Your task to perform on an android device: open a bookmark in the chrome app Image 0: 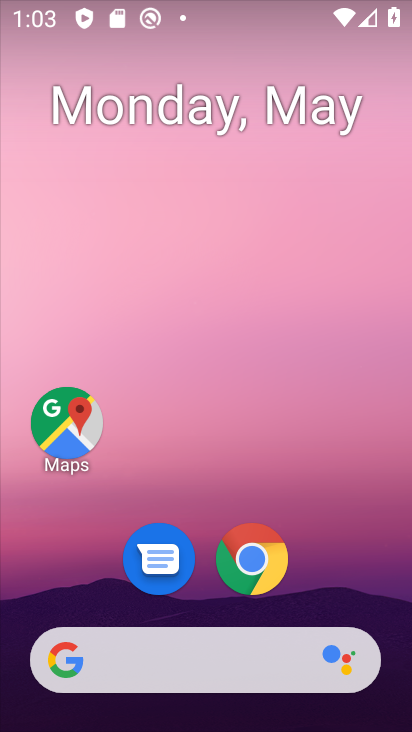
Step 0: click (255, 567)
Your task to perform on an android device: open a bookmark in the chrome app Image 1: 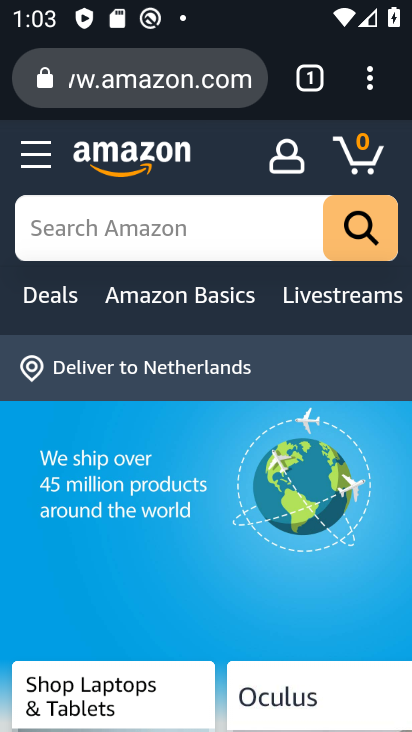
Step 1: click (372, 76)
Your task to perform on an android device: open a bookmark in the chrome app Image 2: 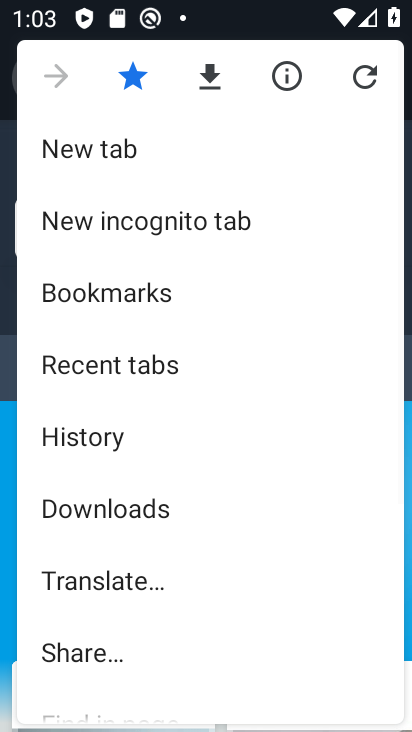
Step 2: click (157, 315)
Your task to perform on an android device: open a bookmark in the chrome app Image 3: 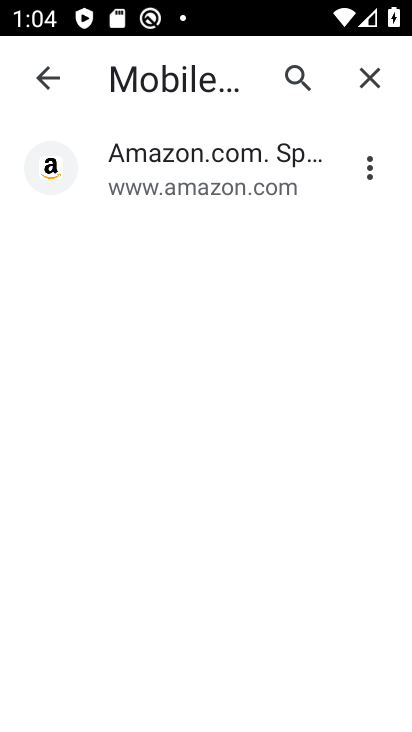
Step 3: click (218, 149)
Your task to perform on an android device: open a bookmark in the chrome app Image 4: 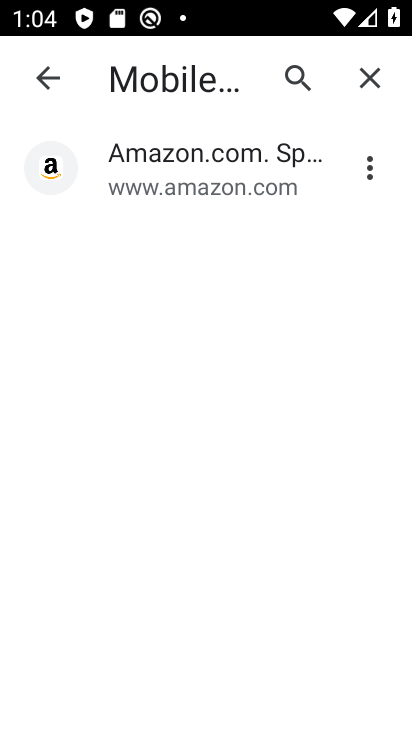
Step 4: task complete